Your task to perform on an android device: Go to Wikipedia Image 0: 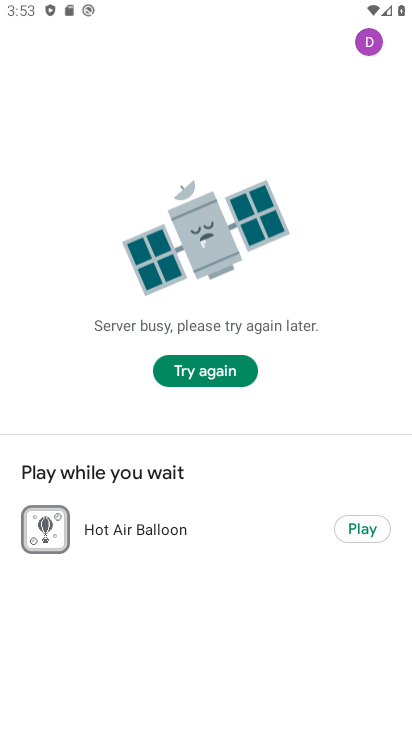
Step 0: press home button
Your task to perform on an android device: Go to Wikipedia Image 1: 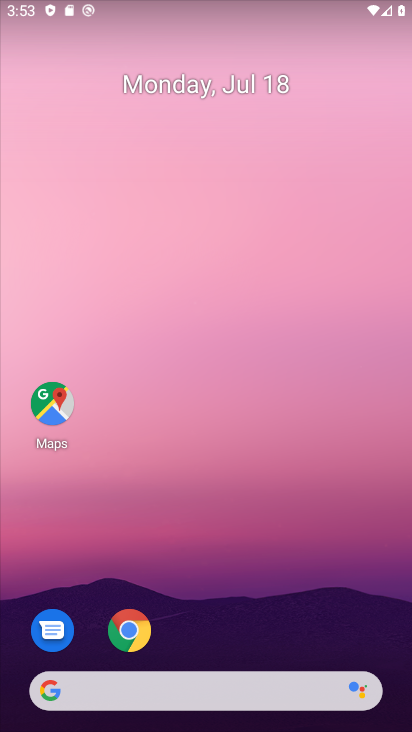
Step 1: drag from (292, 627) to (262, 62)
Your task to perform on an android device: Go to Wikipedia Image 2: 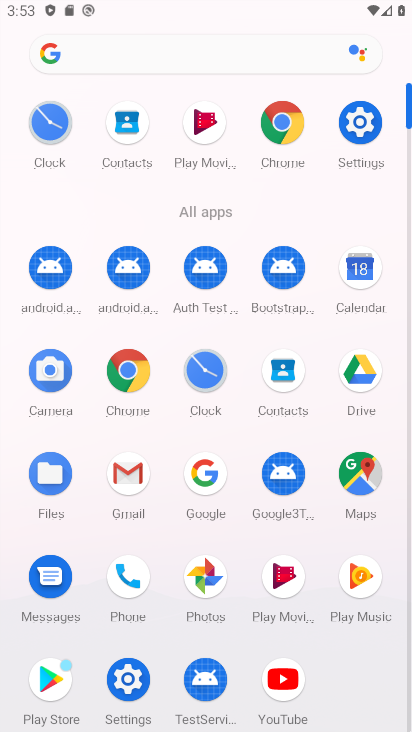
Step 2: click (282, 130)
Your task to perform on an android device: Go to Wikipedia Image 3: 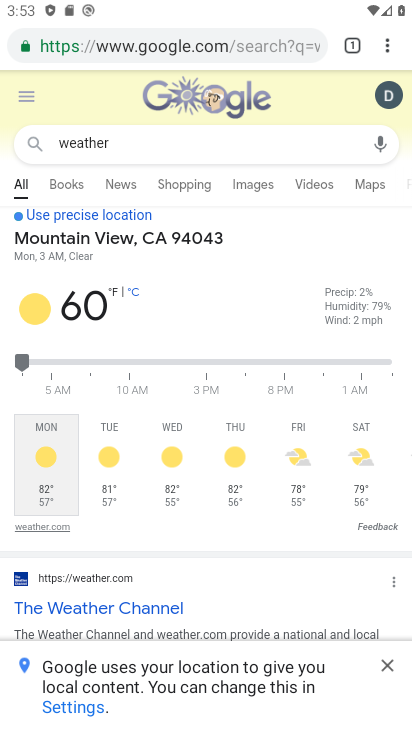
Step 3: click (195, 43)
Your task to perform on an android device: Go to Wikipedia Image 4: 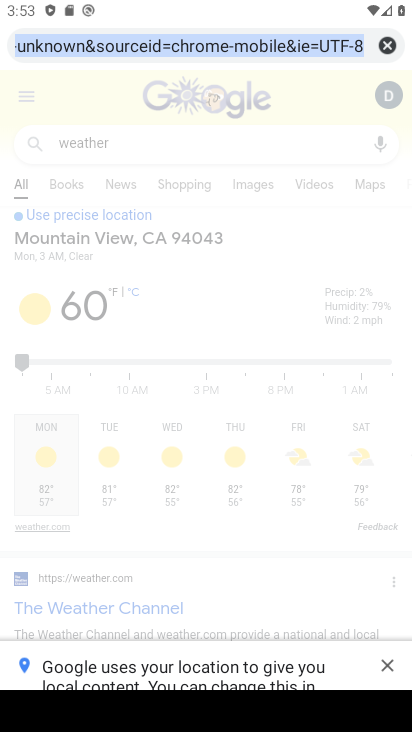
Step 4: type "wikipedia"
Your task to perform on an android device: Go to Wikipedia Image 5: 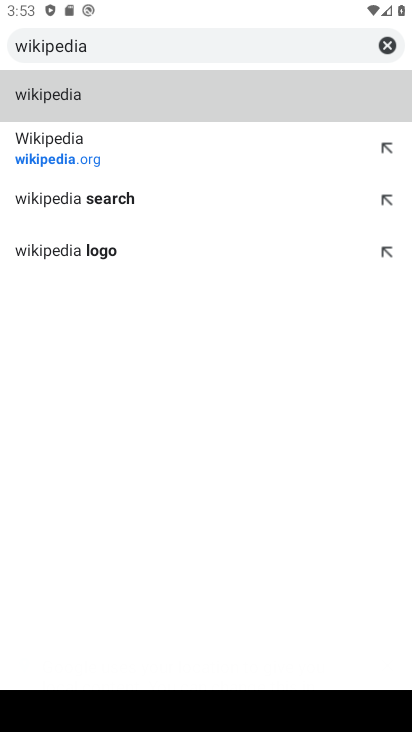
Step 5: click (59, 157)
Your task to perform on an android device: Go to Wikipedia Image 6: 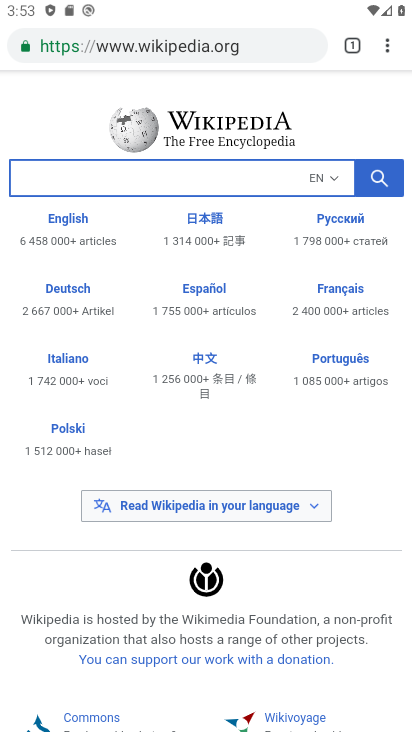
Step 6: task complete